Your task to perform on an android device: set default search engine in the chrome app Image 0: 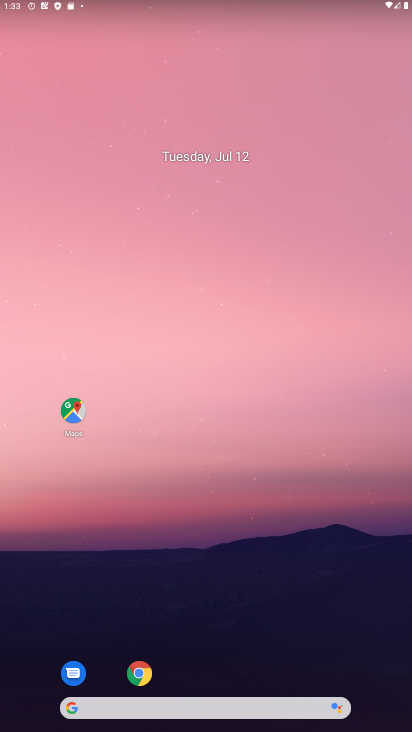
Step 0: drag from (302, 579) to (217, 99)
Your task to perform on an android device: set default search engine in the chrome app Image 1: 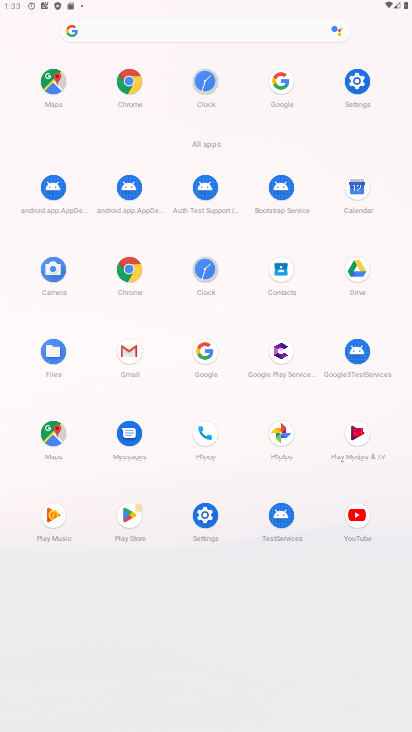
Step 1: click (119, 71)
Your task to perform on an android device: set default search engine in the chrome app Image 2: 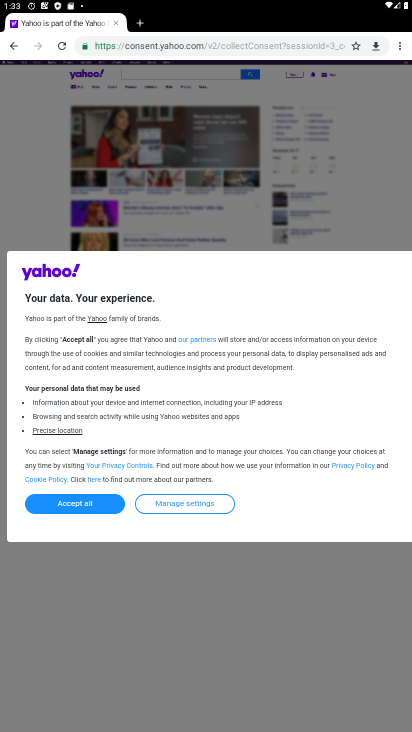
Step 2: press back button
Your task to perform on an android device: set default search engine in the chrome app Image 3: 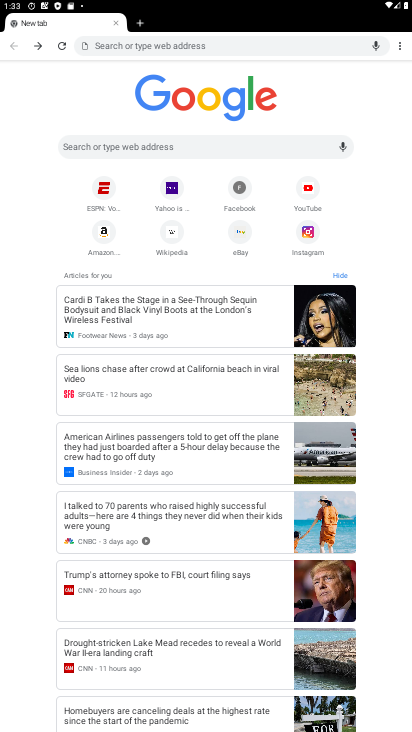
Step 3: drag from (394, 40) to (289, 222)
Your task to perform on an android device: set default search engine in the chrome app Image 4: 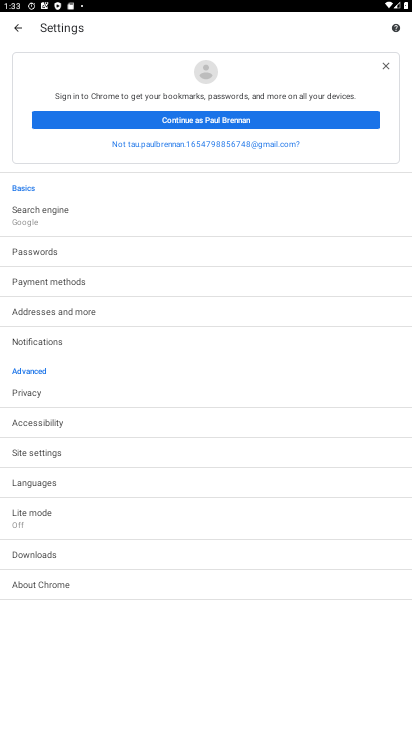
Step 4: click (23, 218)
Your task to perform on an android device: set default search engine in the chrome app Image 5: 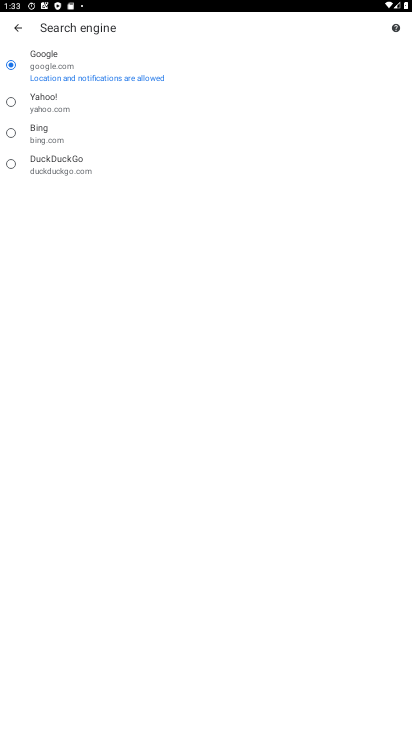
Step 5: task complete